Your task to perform on an android device: turn on improve location accuracy Image 0: 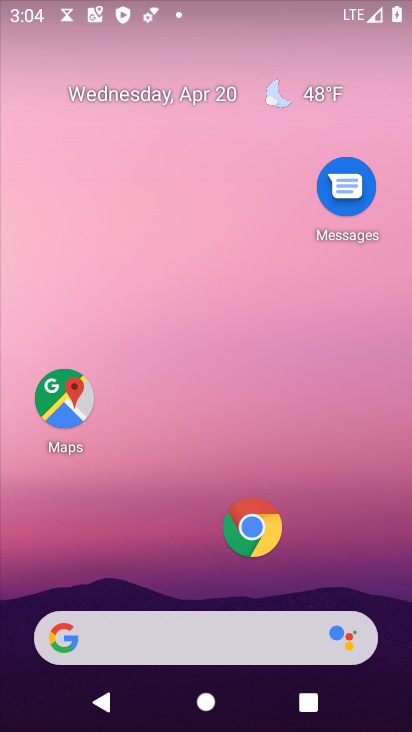
Step 0: drag from (139, 637) to (350, 158)
Your task to perform on an android device: turn on improve location accuracy Image 1: 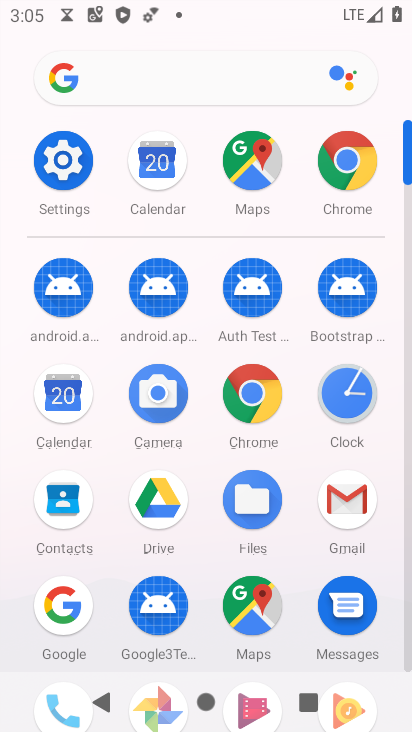
Step 1: click (62, 167)
Your task to perform on an android device: turn on improve location accuracy Image 2: 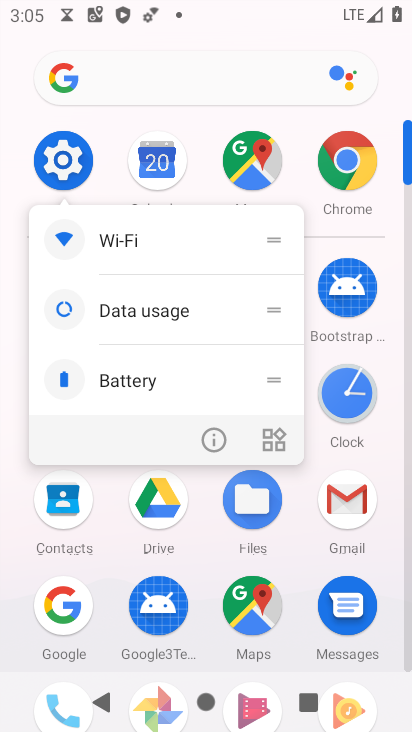
Step 2: click (69, 165)
Your task to perform on an android device: turn on improve location accuracy Image 3: 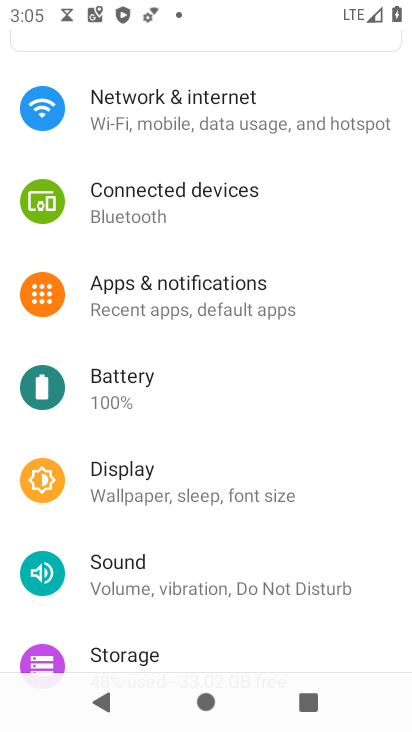
Step 3: drag from (180, 607) to (332, 161)
Your task to perform on an android device: turn on improve location accuracy Image 4: 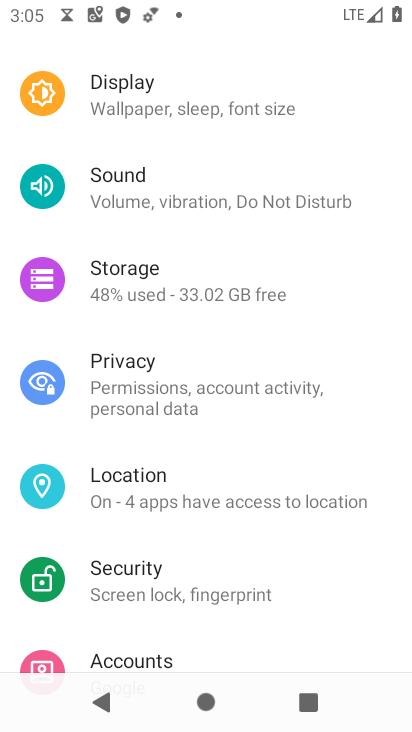
Step 4: click (170, 491)
Your task to perform on an android device: turn on improve location accuracy Image 5: 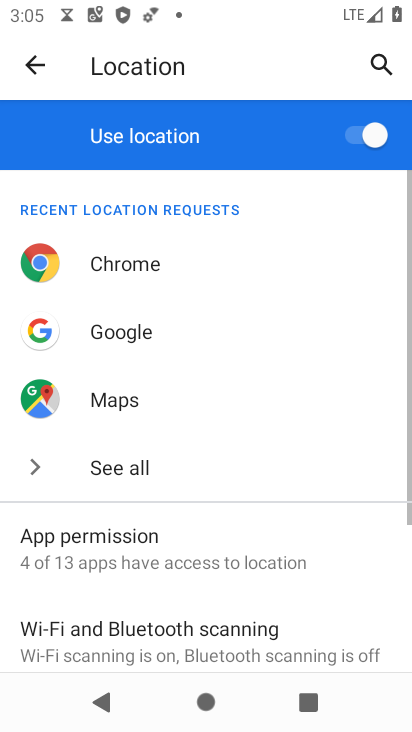
Step 5: drag from (179, 617) to (339, 249)
Your task to perform on an android device: turn on improve location accuracy Image 6: 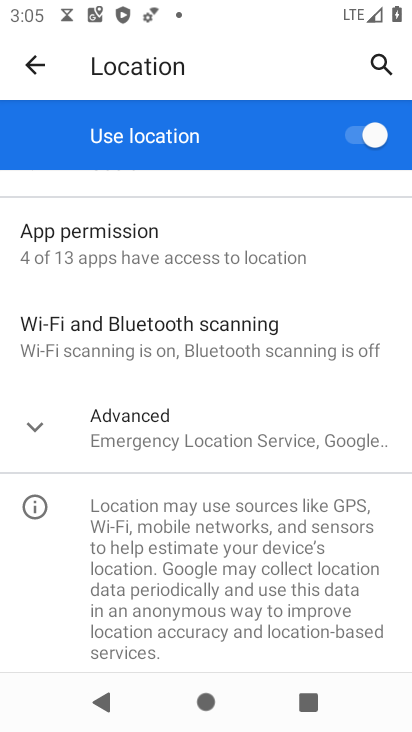
Step 6: click (151, 429)
Your task to perform on an android device: turn on improve location accuracy Image 7: 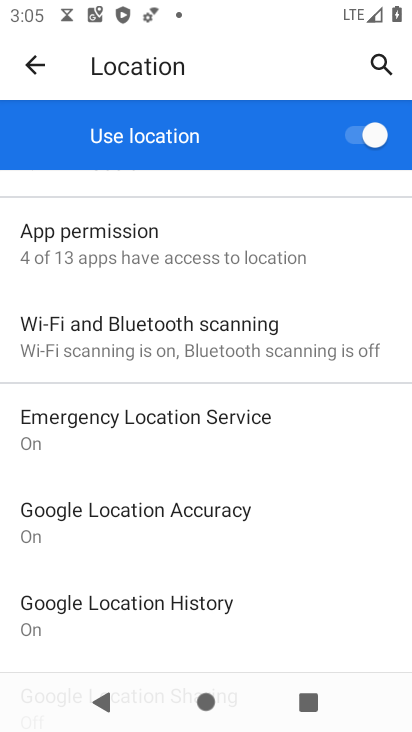
Step 7: click (111, 528)
Your task to perform on an android device: turn on improve location accuracy Image 8: 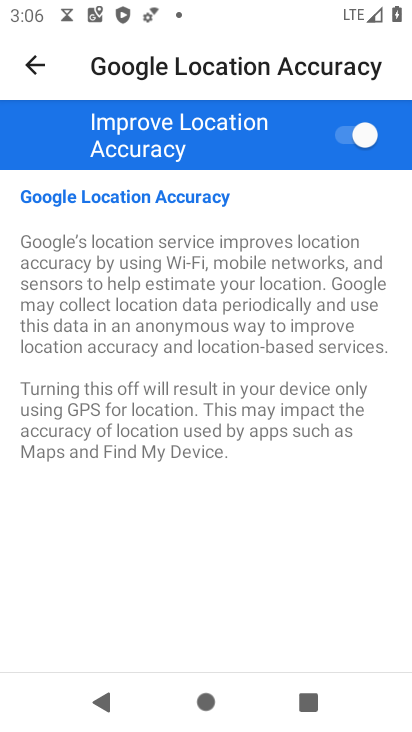
Step 8: task complete